Your task to perform on an android device: turn off improve location accuracy Image 0: 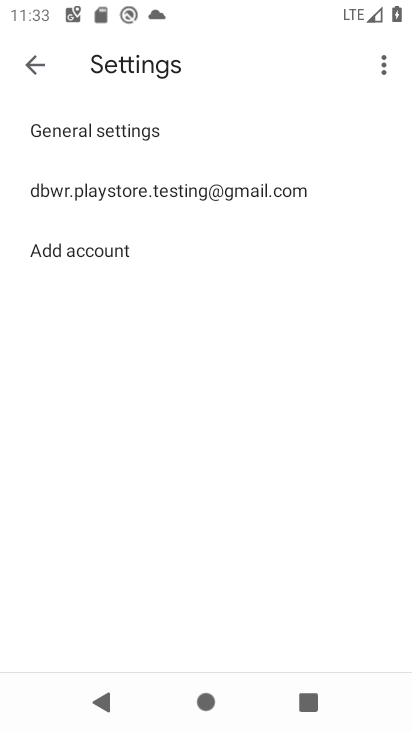
Step 0: press home button
Your task to perform on an android device: turn off improve location accuracy Image 1: 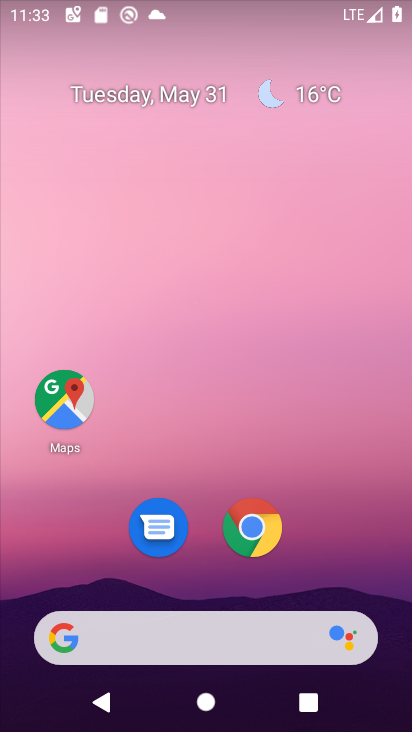
Step 1: drag from (347, 580) to (347, 6)
Your task to perform on an android device: turn off improve location accuracy Image 2: 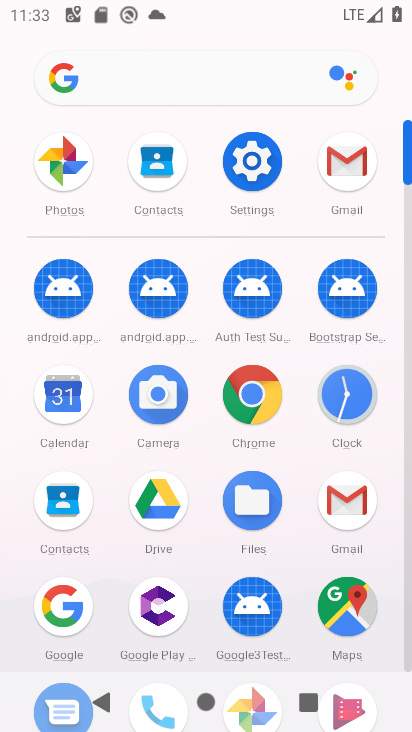
Step 2: click (253, 170)
Your task to perform on an android device: turn off improve location accuracy Image 3: 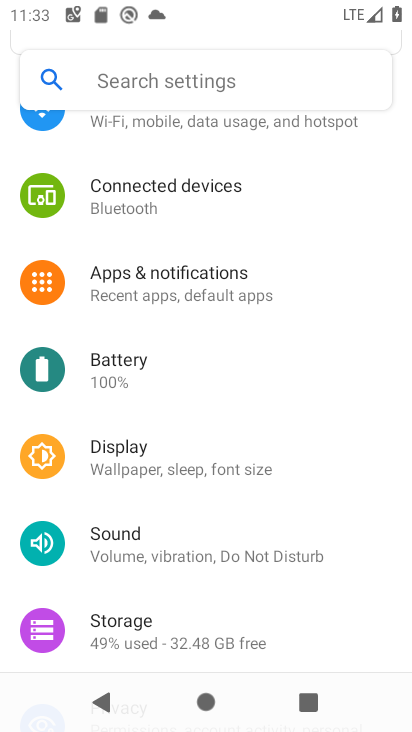
Step 3: drag from (320, 529) to (336, 222)
Your task to perform on an android device: turn off improve location accuracy Image 4: 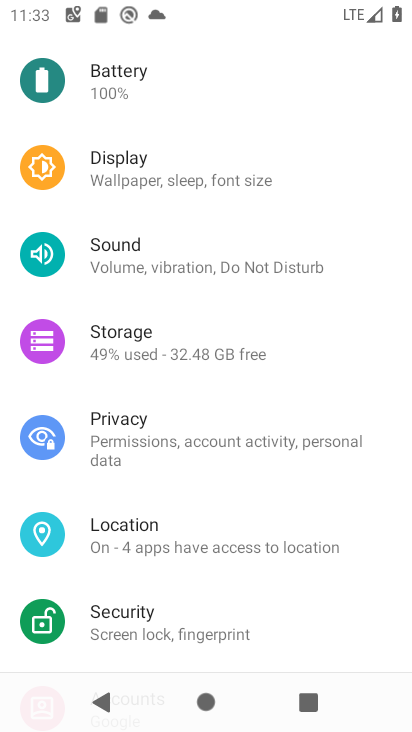
Step 4: click (133, 533)
Your task to perform on an android device: turn off improve location accuracy Image 5: 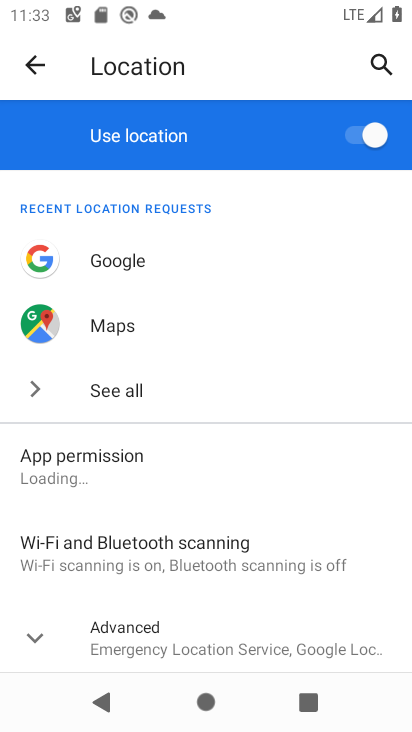
Step 5: drag from (216, 512) to (236, 207)
Your task to perform on an android device: turn off improve location accuracy Image 6: 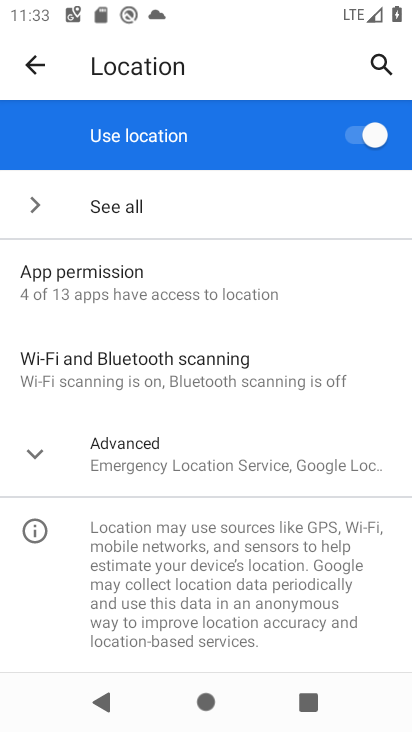
Step 6: click (26, 468)
Your task to perform on an android device: turn off improve location accuracy Image 7: 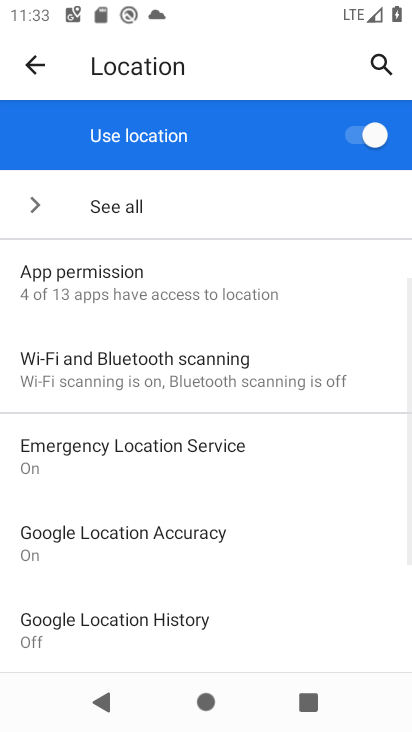
Step 7: click (64, 515)
Your task to perform on an android device: turn off improve location accuracy Image 8: 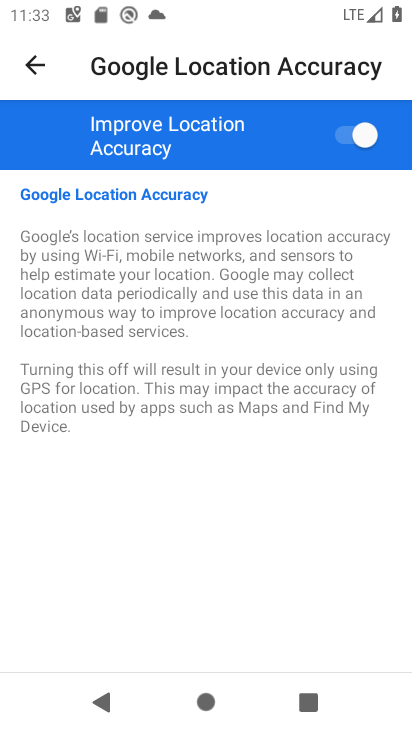
Step 8: click (364, 149)
Your task to perform on an android device: turn off improve location accuracy Image 9: 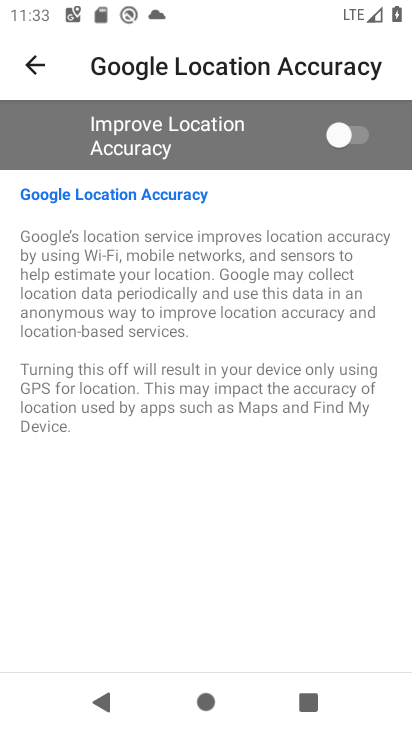
Step 9: task complete